Your task to perform on an android device: Open settings on Google Maps Image 0: 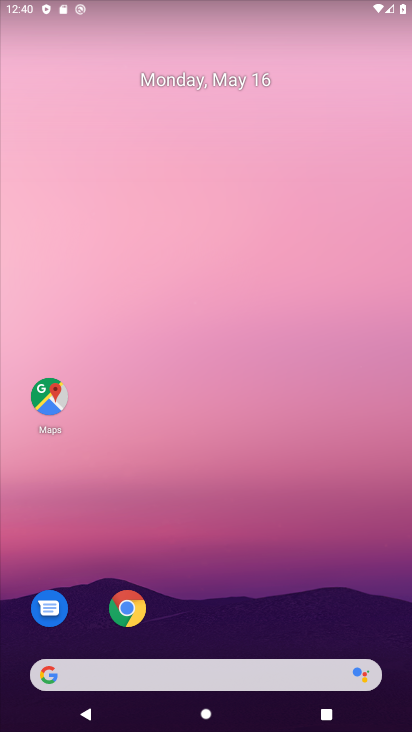
Step 0: click (49, 410)
Your task to perform on an android device: Open settings on Google Maps Image 1: 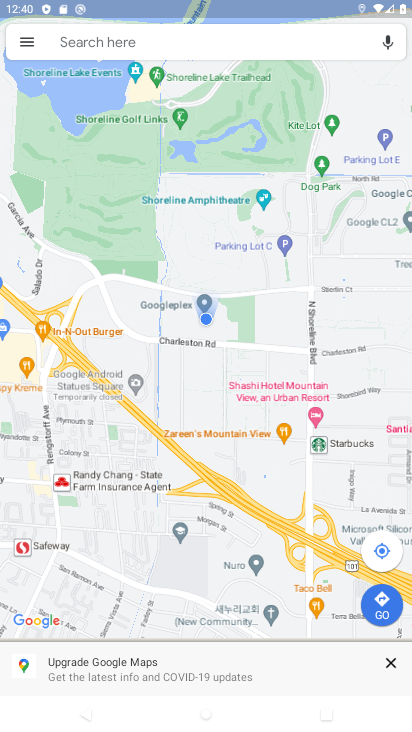
Step 1: click (29, 40)
Your task to perform on an android device: Open settings on Google Maps Image 2: 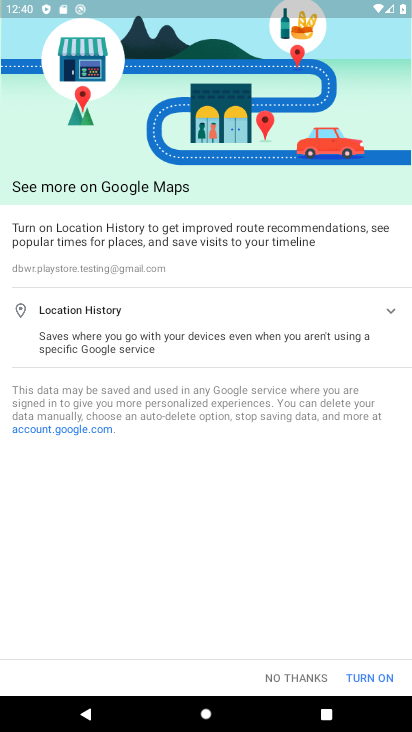
Step 2: click (364, 674)
Your task to perform on an android device: Open settings on Google Maps Image 3: 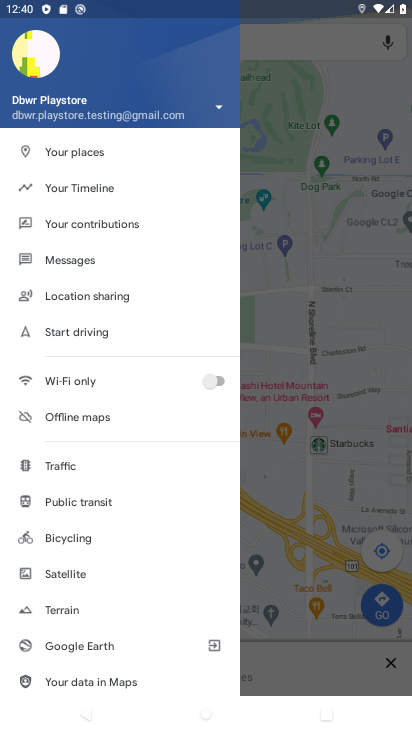
Step 3: drag from (84, 604) to (111, 404)
Your task to perform on an android device: Open settings on Google Maps Image 4: 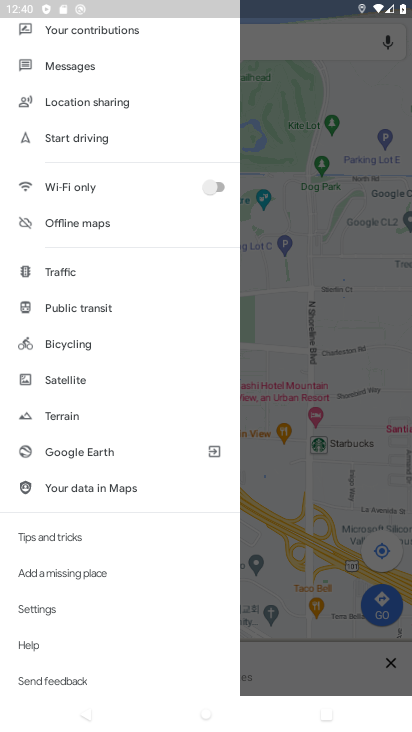
Step 4: click (43, 608)
Your task to perform on an android device: Open settings on Google Maps Image 5: 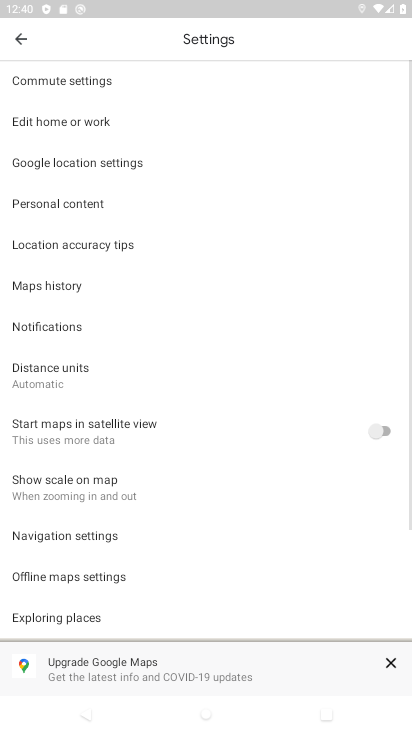
Step 5: task complete